Your task to perform on an android device: Go to display settings Image 0: 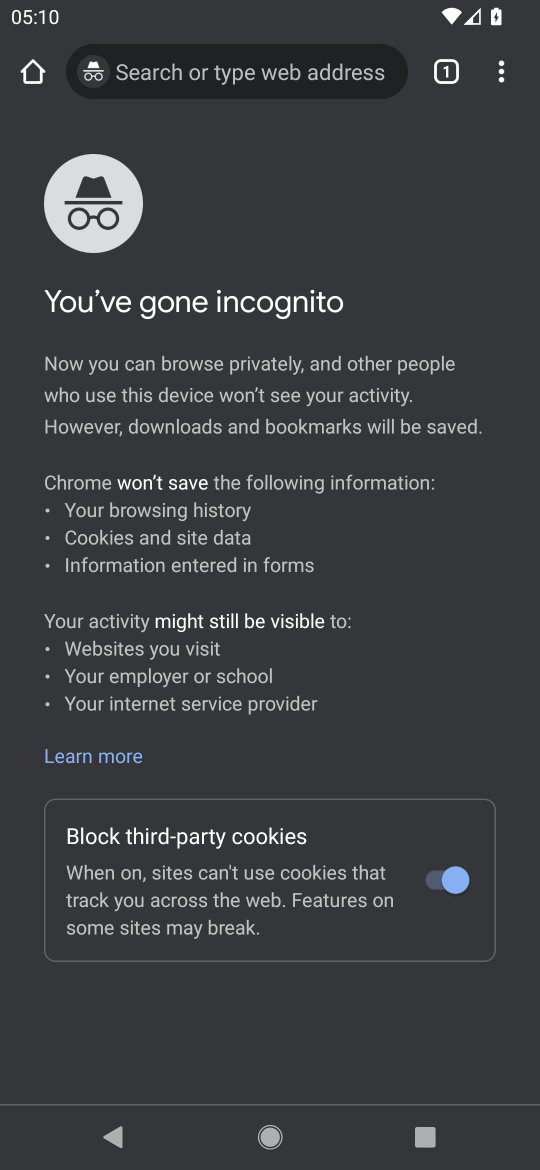
Step 0: press home button
Your task to perform on an android device: Go to display settings Image 1: 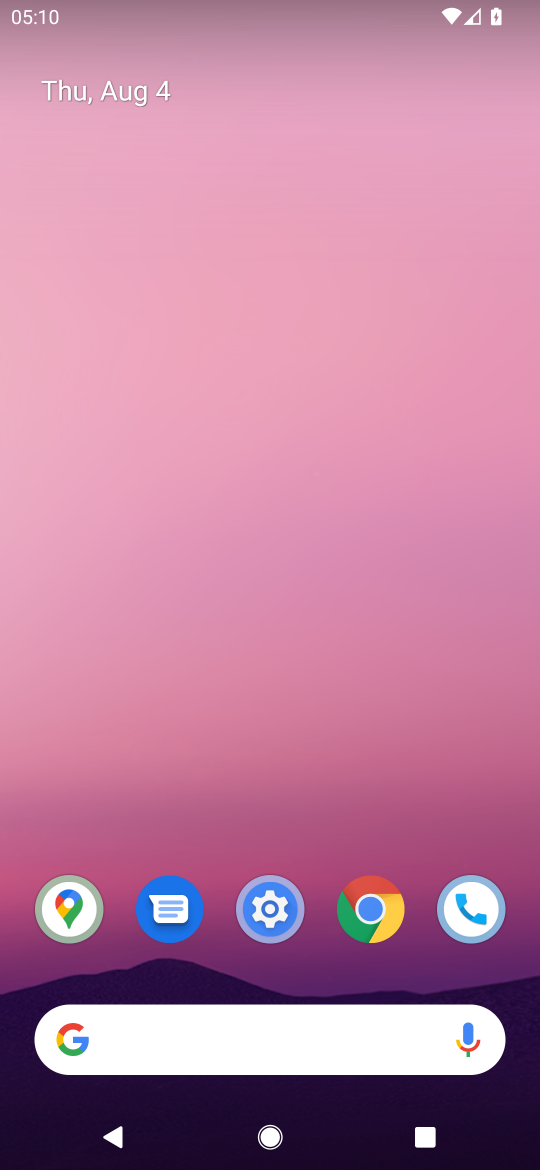
Step 1: drag from (330, 833) to (370, 166)
Your task to perform on an android device: Go to display settings Image 2: 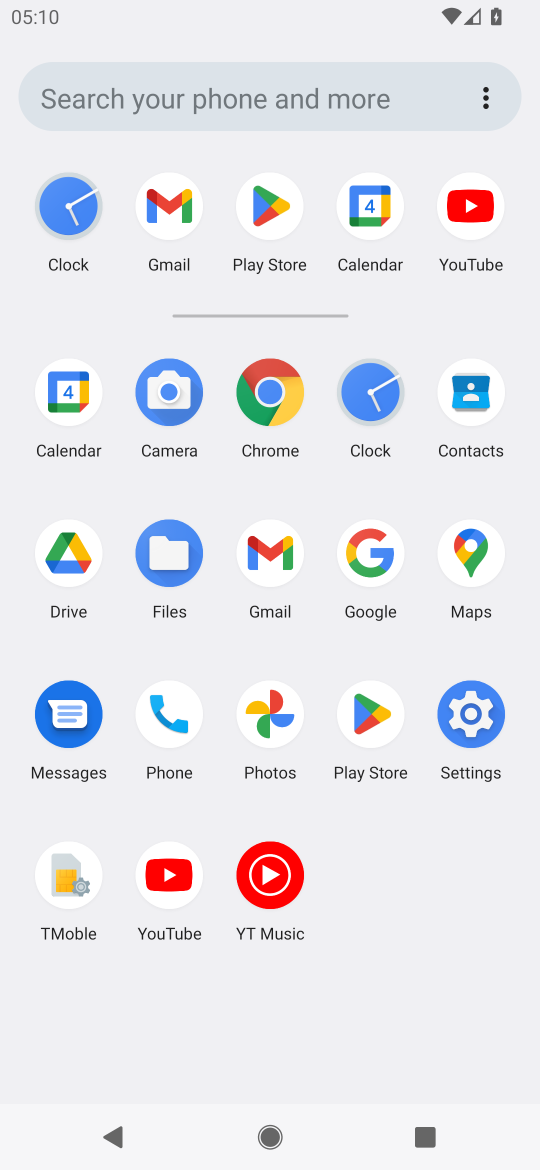
Step 2: click (483, 716)
Your task to perform on an android device: Go to display settings Image 3: 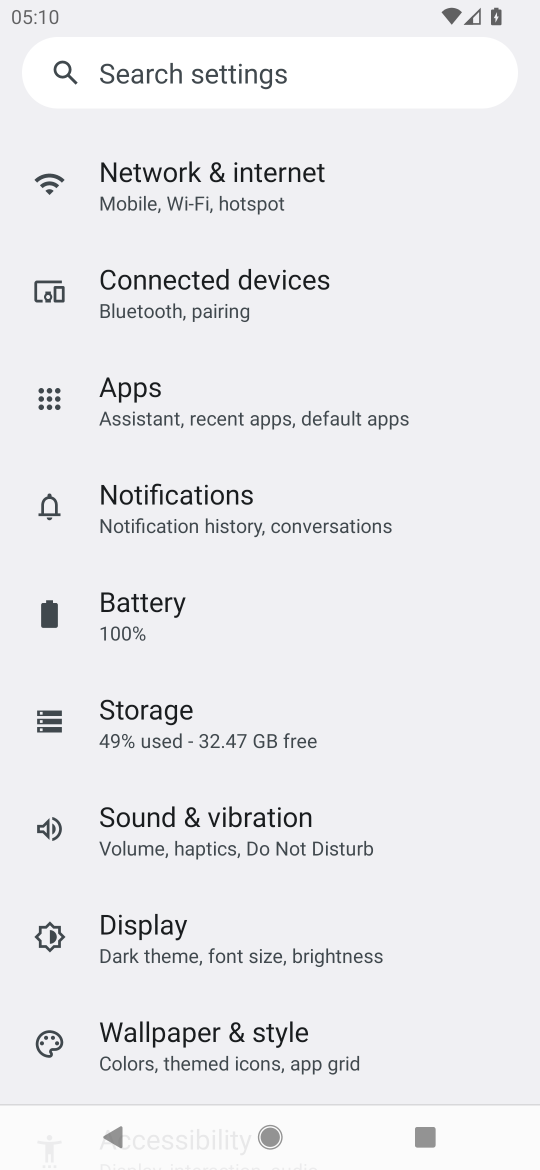
Step 3: click (174, 959)
Your task to perform on an android device: Go to display settings Image 4: 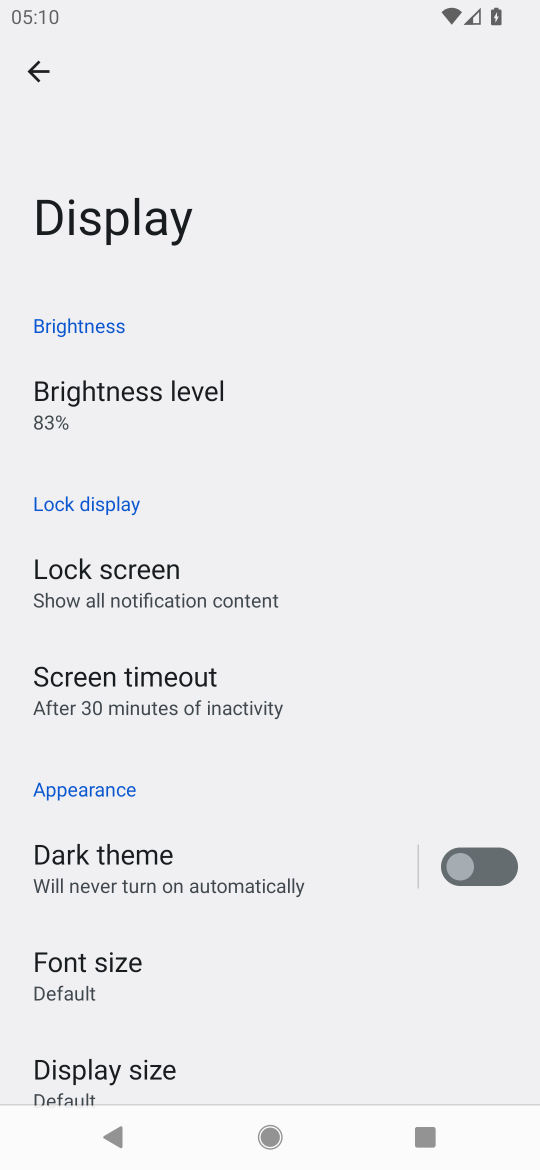
Step 4: task complete